Your task to perform on an android device: open device folders in google photos Image 0: 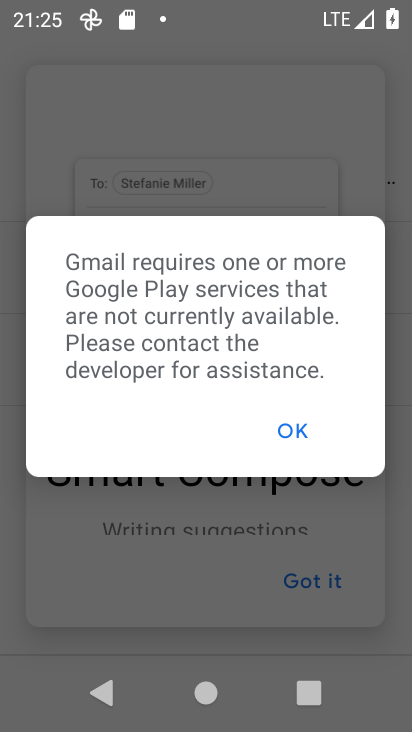
Step 0: press home button
Your task to perform on an android device: open device folders in google photos Image 1: 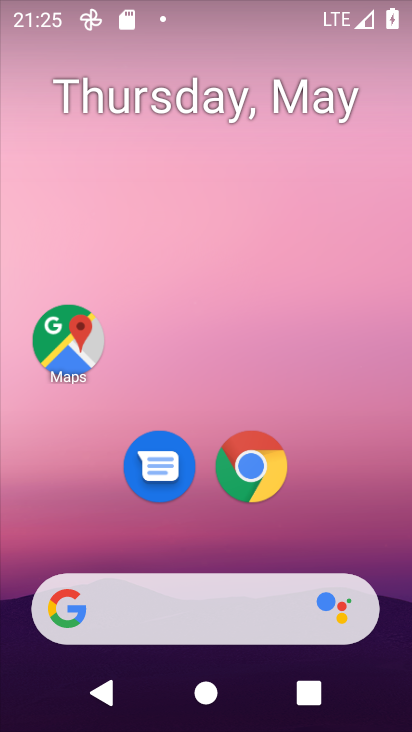
Step 1: drag from (348, 533) to (346, 60)
Your task to perform on an android device: open device folders in google photos Image 2: 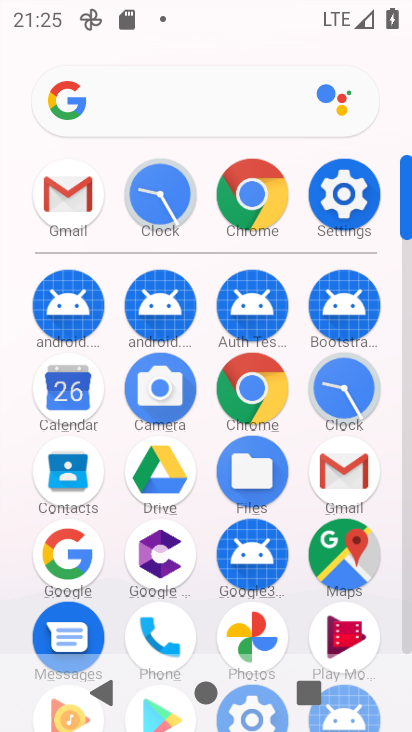
Step 2: click (280, 640)
Your task to perform on an android device: open device folders in google photos Image 3: 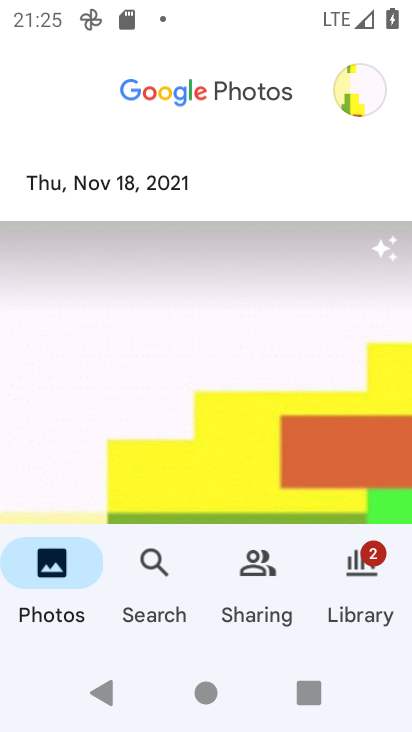
Step 3: click (350, 87)
Your task to perform on an android device: open device folders in google photos Image 4: 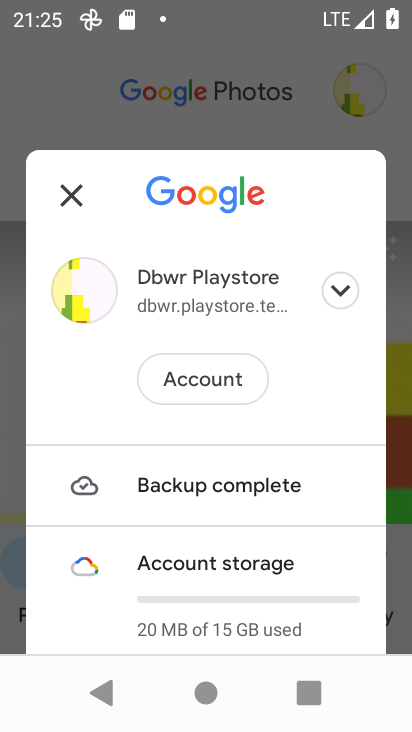
Step 4: task complete